Your task to perform on an android device: Open maps Image 0: 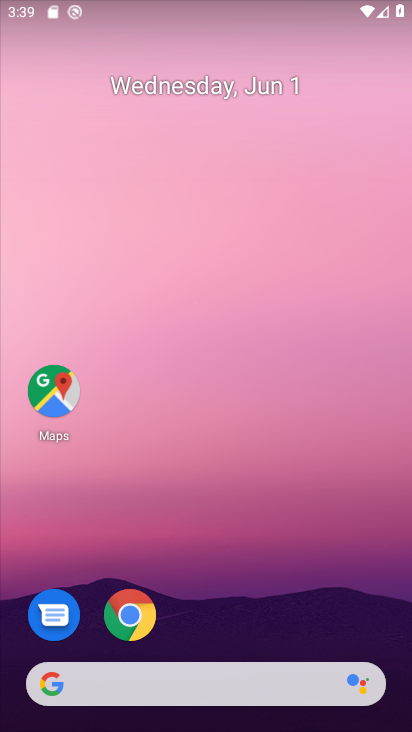
Step 0: click (47, 391)
Your task to perform on an android device: Open maps Image 1: 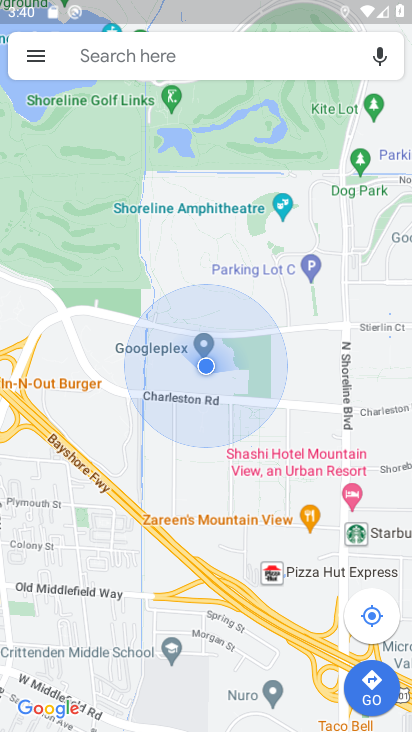
Step 1: task complete